Your task to perform on an android device: open the mobile data screen to see how much data has been used Image 0: 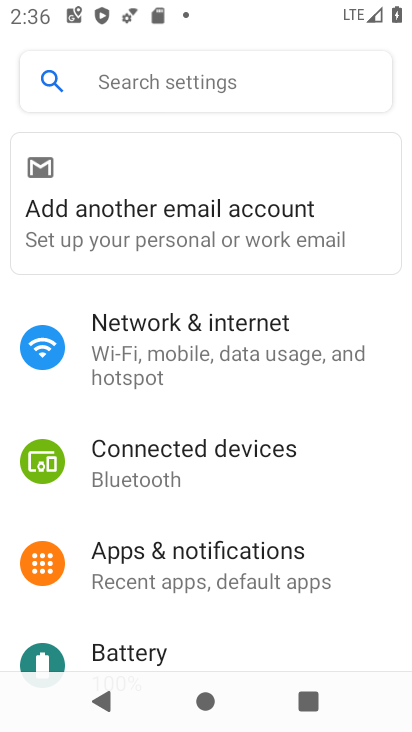
Step 0: press home button
Your task to perform on an android device: open the mobile data screen to see how much data has been used Image 1: 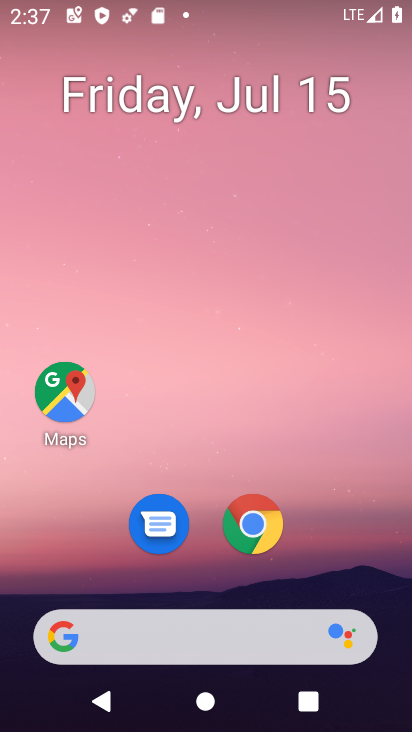
Step 1: drag from (206, 633) to (332, 245)
Your task to perform on an android device: open the mobile data screen to see how much data has been used Image 2: 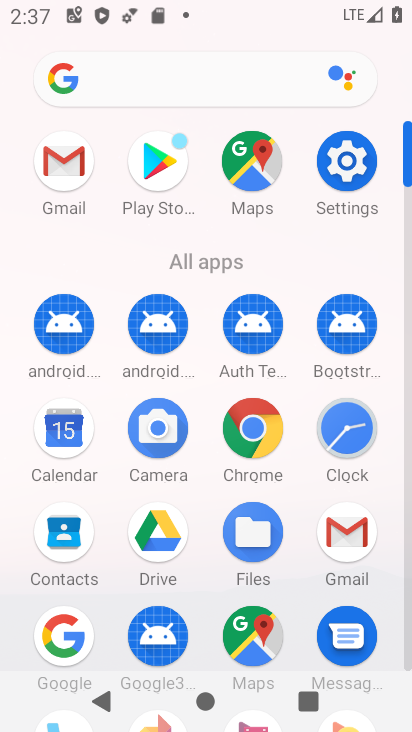
Step 2: click (350, 172)
Your task to perform on an android device: open the mobile data screen to see how much data has been used Image 3: 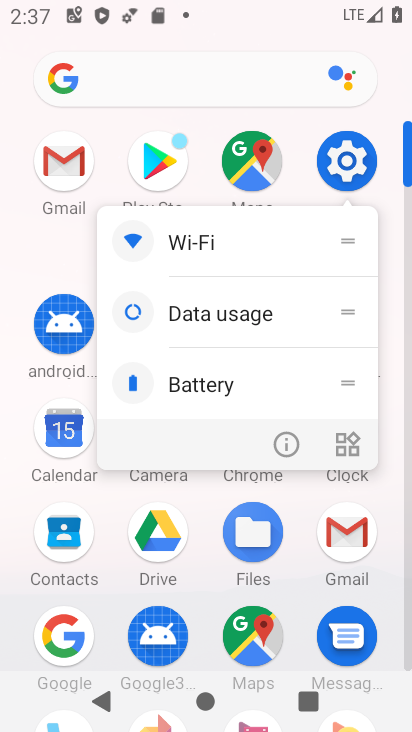
Step 3: click (351, 154)
Your task to perform on an android device: open the mobile data screen to see how much data has been used Image 4: 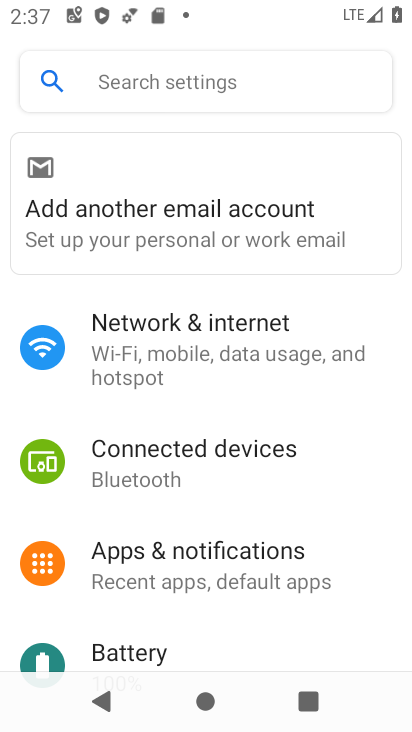
Step 4: click (224, 355)
Your task to perform on an android device: open the mobile data screen to see how much data has been used Image 5: 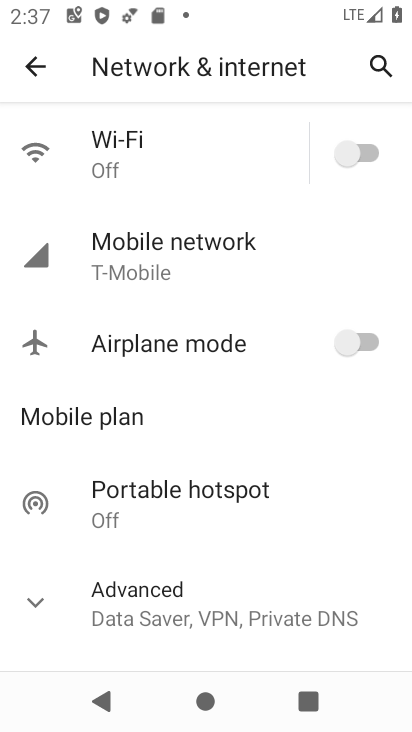
Step 5: click (169, 257)
Your task to perform on an android device: open the mobile data screen to see how much data has been used Image 6: 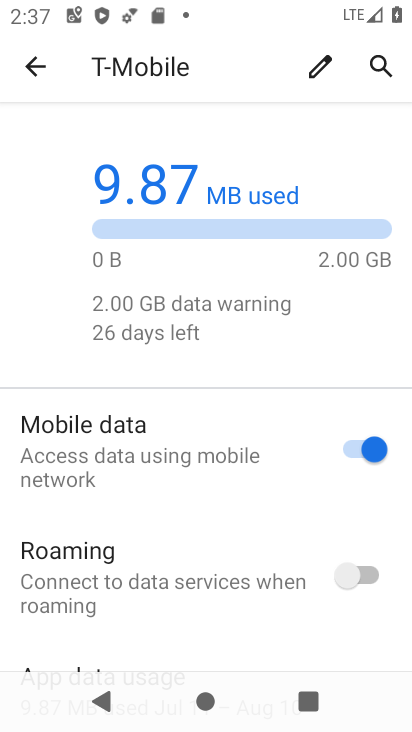
Step 6: task complete